Your task to perform on an android device: Search for pizza restaurants on Maps Image 0: 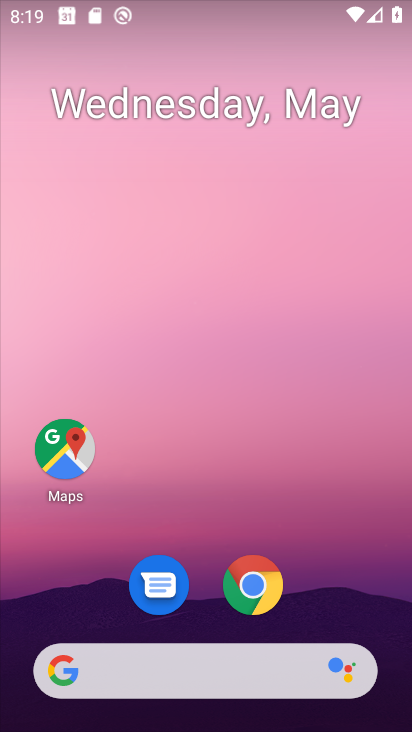
Step 0: click (78, 441)
Your task to perform on an android device: Search for pizza restaurants on Maps Image 1: 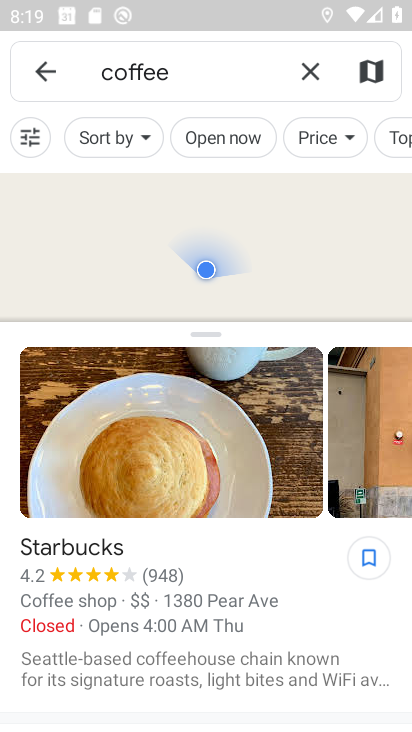
Step 1: click (311, 69)
Your task to perform on an android device: Search for pizza restaurants on Maps Image 2: 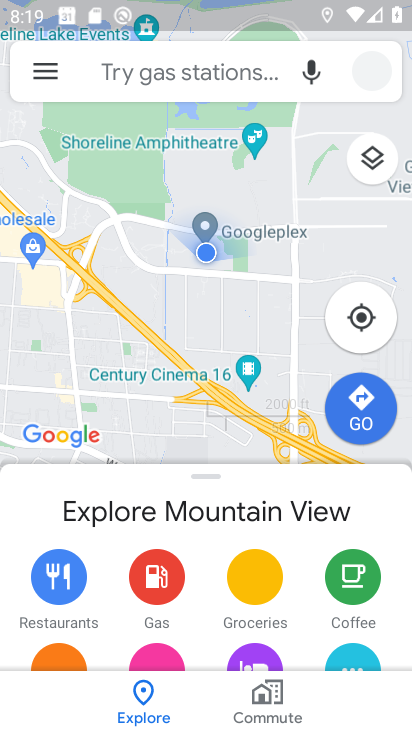
Step 2: click (216, 70)
Your task to perform on an android device: Search for pizza restaurants on Maps Image 3: 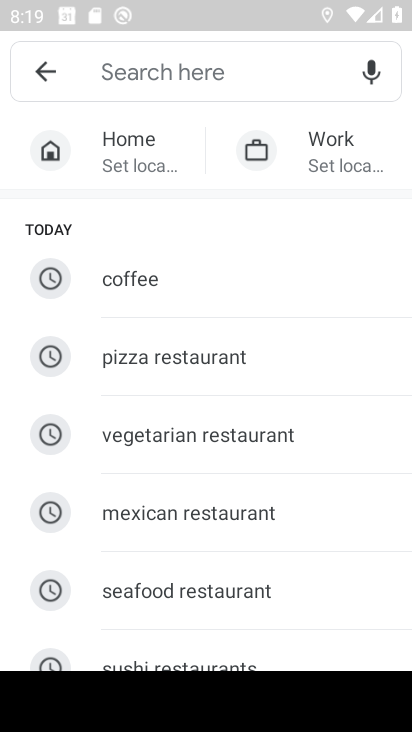
Step 3: click (218, 358)
Your task to perform on an android device: Search for pizza restaurants on Maps Image 4: 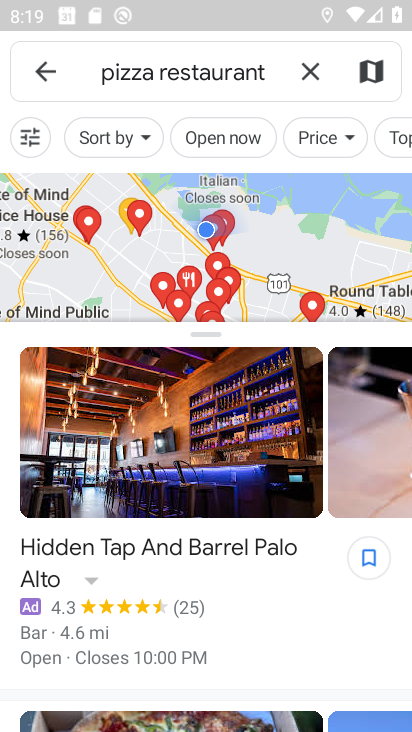
Step 4: task complete